Your task to perform on an android device: When is my next meeting? Image 0: 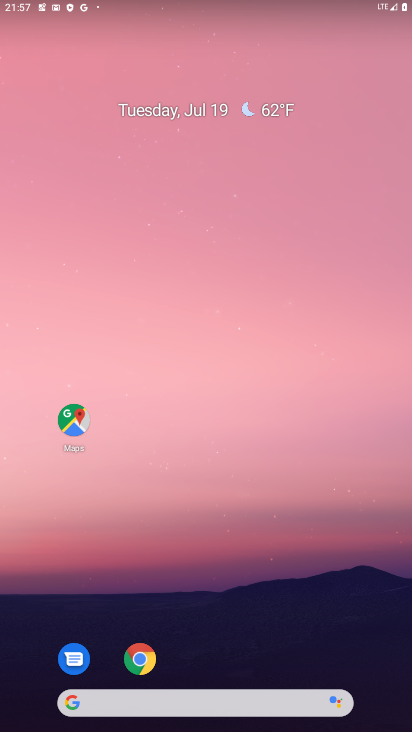
Step 0: drag from (222, 663) to (314, 93)
Your task to perform on an android device: When is my next meeting? Image 1: 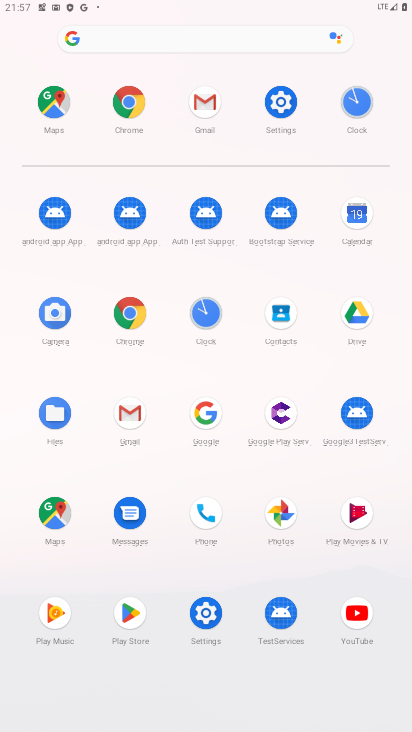
Step 1: click (351, 204)
Your task to perform on an android device: When is my next meeting? Image 2: 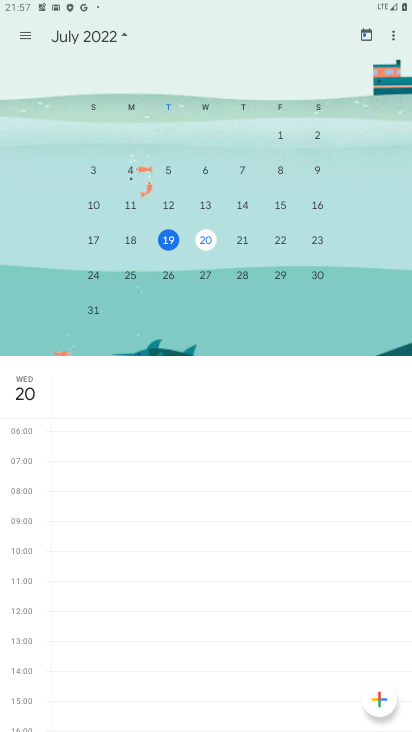
Step 2: click (235, 237)
Your task to perform on an android device: When is my next meeting? Image 3: 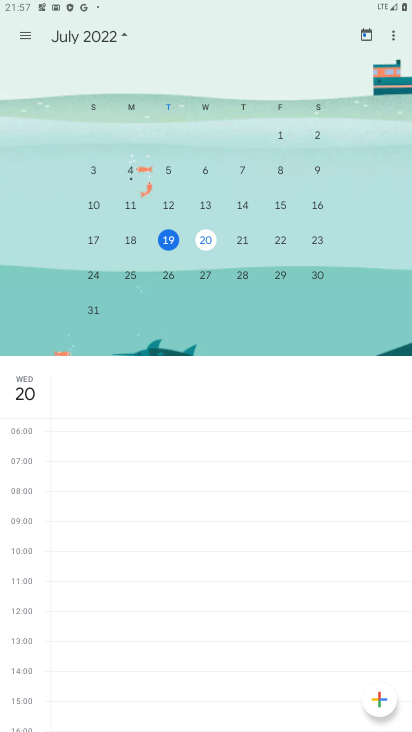
Step 3: click (25, 40)
Your task to perform on an android device: When is my next meeting? Image 4: 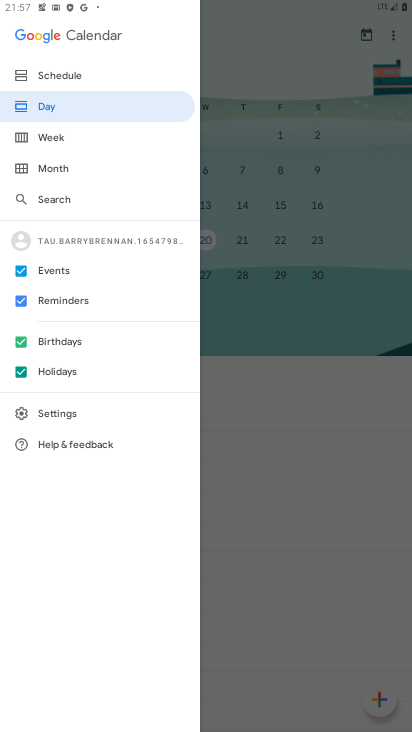
Step 4: click (45, 69)
Your task to perform on an android device: When is my next meeting? Image 5: 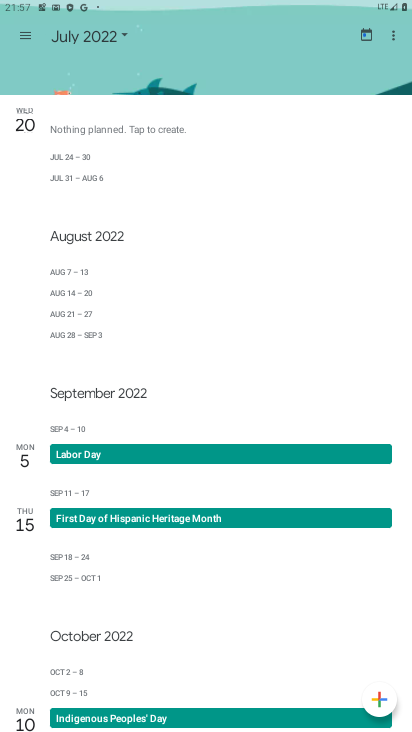
Step 5: task complete